Your task to perform on an android device: Search for Mexican restaurants on Maps Image 0: 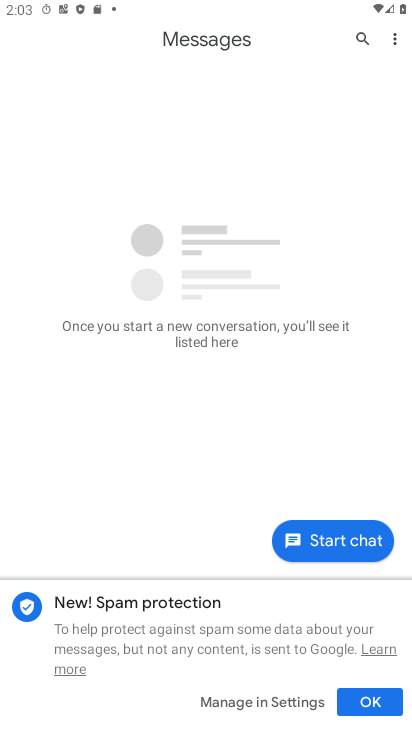
Step 0: press home button
Your task to perform on an android device: Search for Mexican restaurants on Maps Image 1: 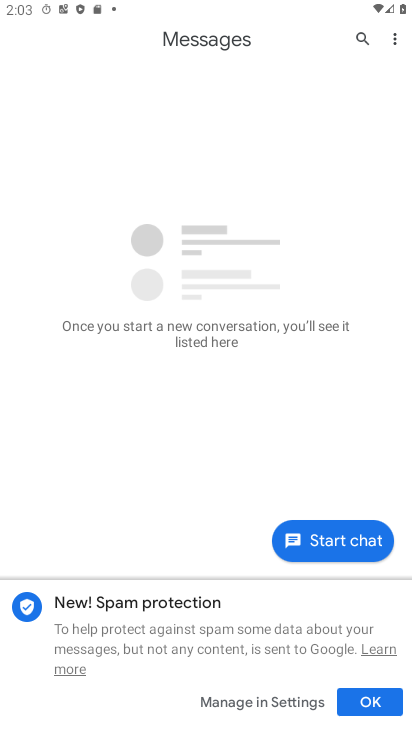
Step 1: press home button
Your task to perform on an android device: Search for Mexican restaurants on Maps Image 2: 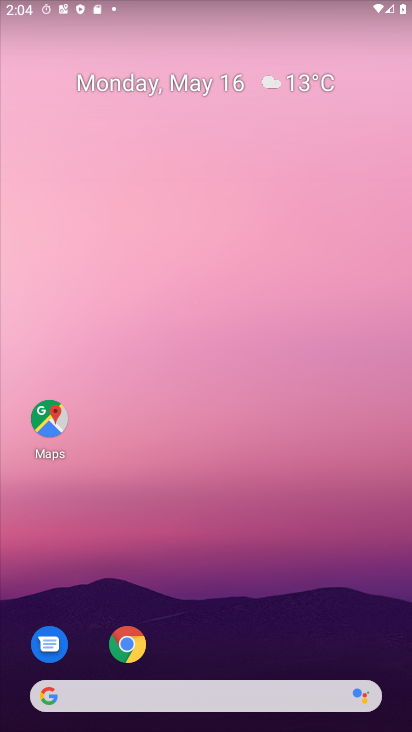
Step 2: drag from (230, 577) to (286, 136)
Your task to perform on an android device: Search for Mexican restaurants on Maps Image 3: 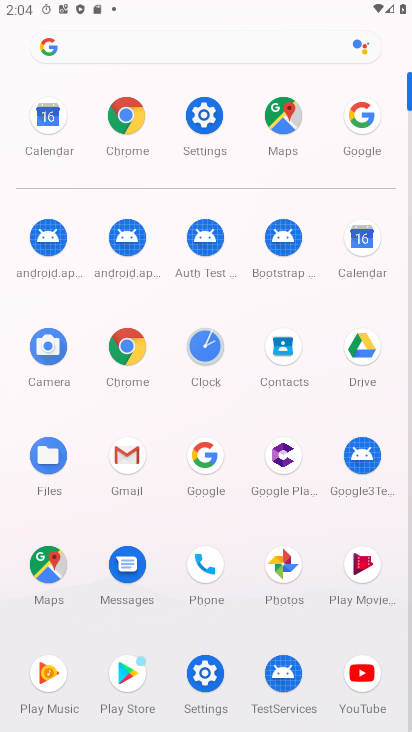
Step 3: click (269, 135)
Your task to perform on an android device: Search for Mexican restaurants on Maps Image 4: 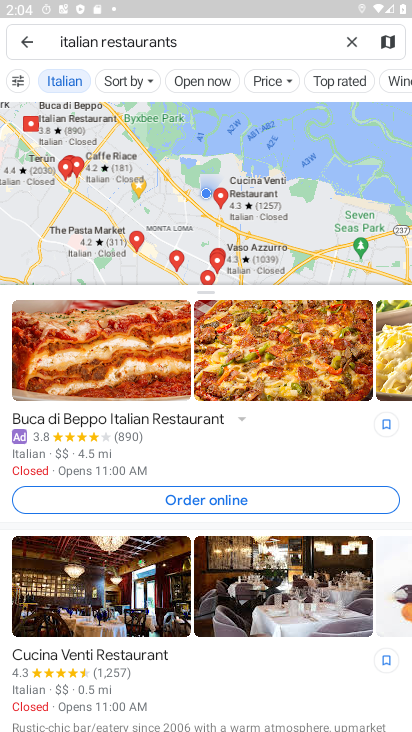
Step 4: click (358, 48)
Your task to perform on an android device: Search for Mexican restaurants on Maps Image 5: 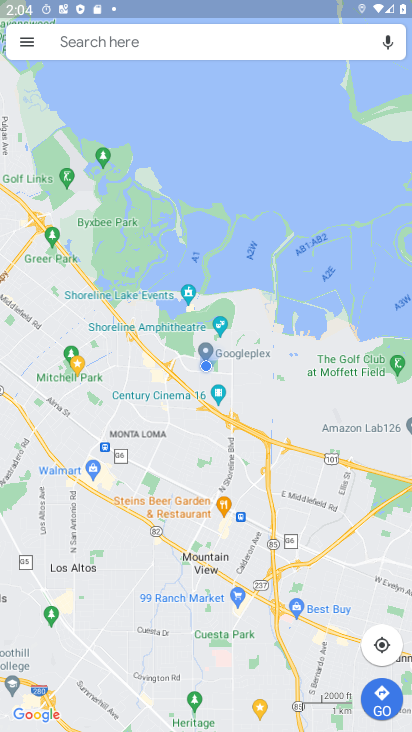
Step 5: click (279, 49)
Your task to perform on an android device: Search for Mexican restaurants on Maps Image 6: 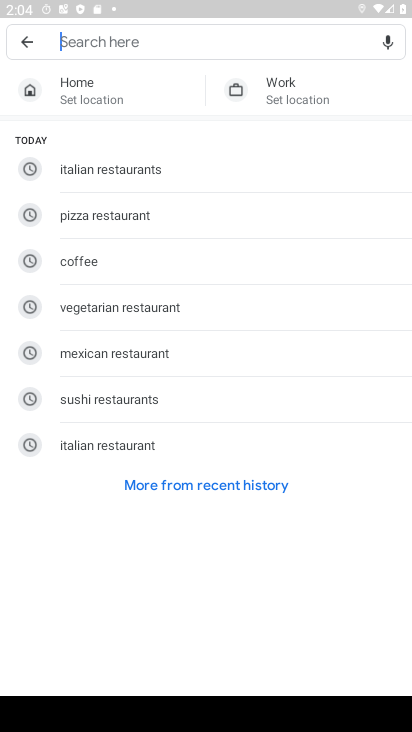
Step 6: click (168, 364)
Your task to perform on an android device: Search for Mexican restaurants on Maps Image 7: 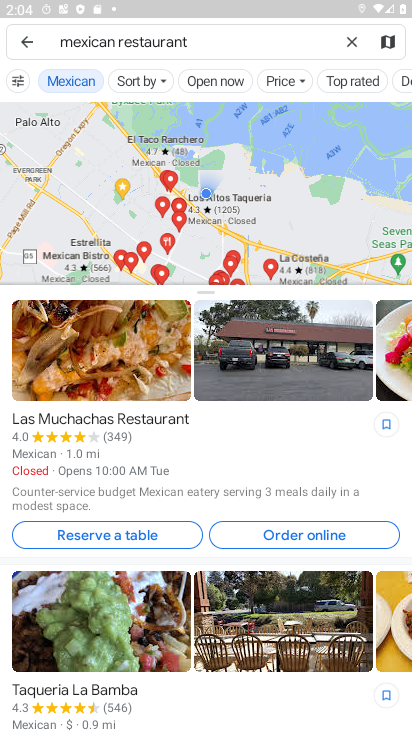
Step 7: task complete